Your task to perform on an android device: turn off priority inbox in the gmail app Image 0: 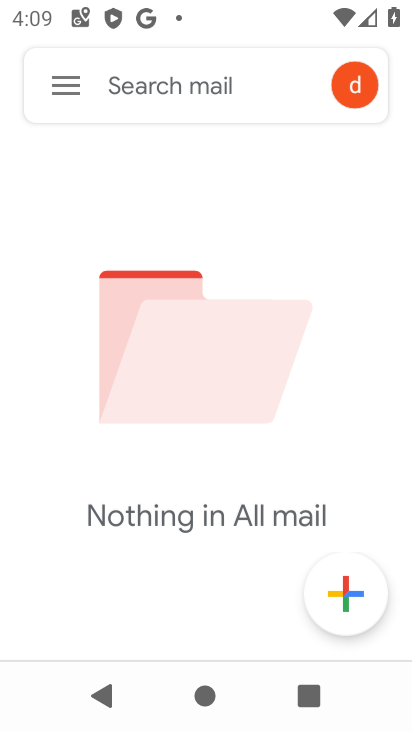
Step 0: drag from (351, 521) to (315, 126)
Your task to perform on an android device: turn off priority inbox in the gmail app Image 1: 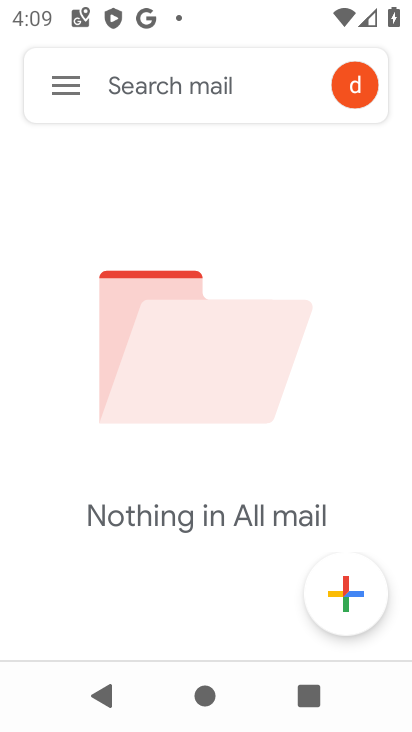
Step 1: click (61, 85)
Your task to perform on an android device: turn off priority inbox in the gmail app Image 2: 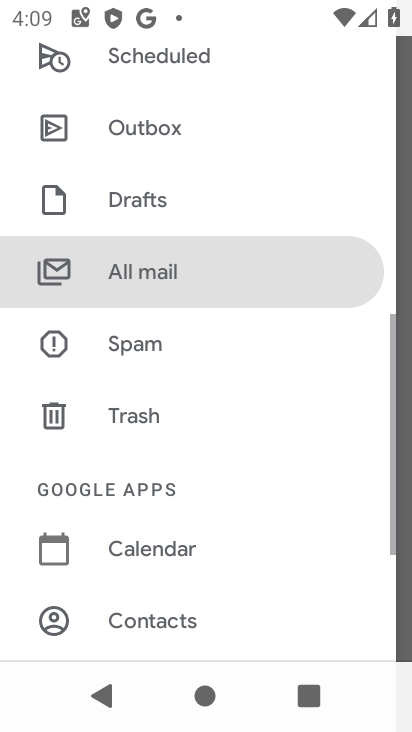
Step 2: drag from (125, 607) to (225, 172)
Your task to perform on an android device: turn off priority inbox in the gmail app Image 3: 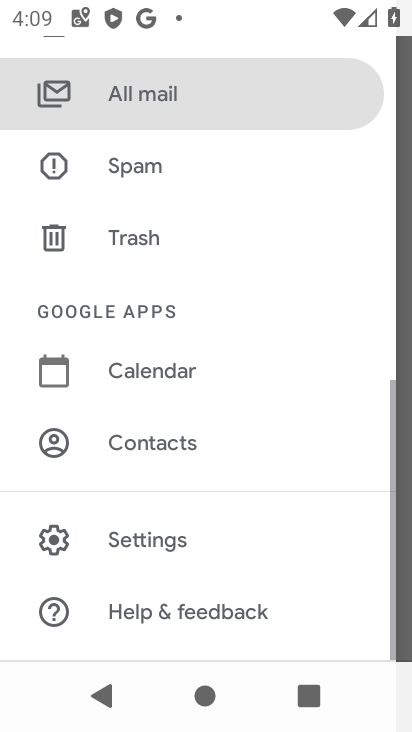
Step 3: click (145, 547)
Your task to perform on an android device: turn off priority inbox in the gmail app Image 4: 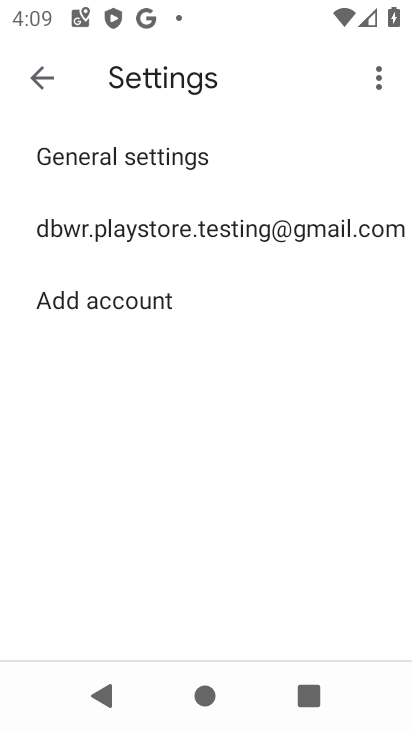
Step 4: click (138, 232)
Your task to perform on an android device: turn off priority inbox in the gmail app Image 5: 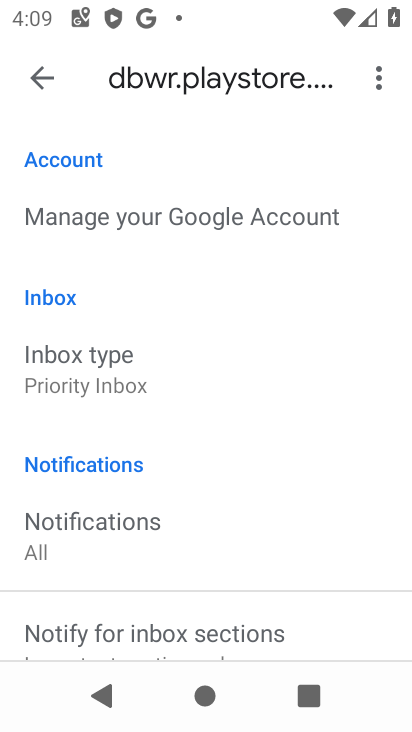
Step 5: drag from (243, 548) to (305, 230)
Your task to perform on an android device: turn off priority inbox in the gmail app Image 6: 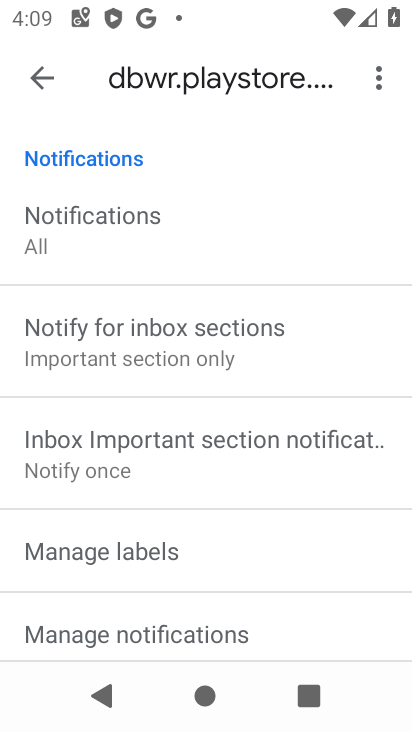
Step 6: drag from (117, 168) to (130, 493)
Your task to perform on an android device: turn off priority inbox in the gmail app Image 7: 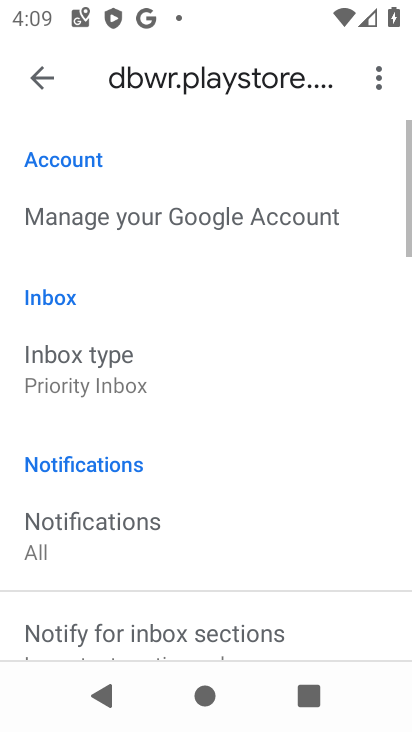
Step 7: drag from (249, 224) to (239, 422)
Your task to perform on an android device: turn off priority inbox in the gmail app Image 8: 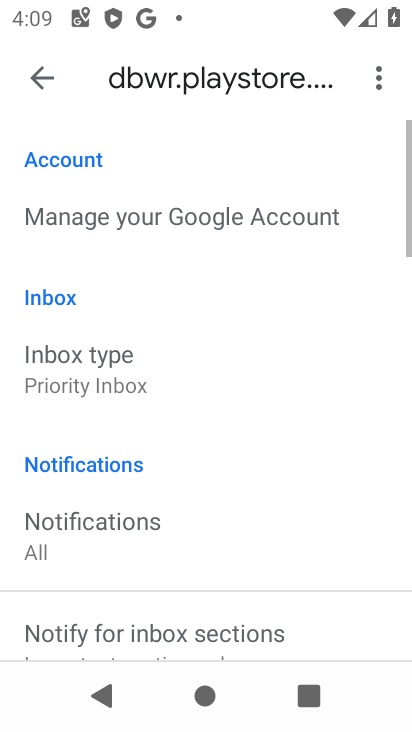
Step 8: click (103, 371)
Your task to perform on an android device: turn off priority inbox in the gmail app Image 9: 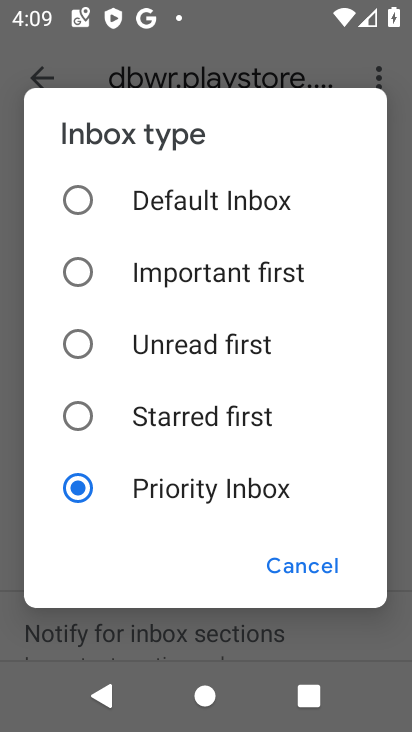
Step 9: task complete